Your task to perform on an android device: Empty the shopping cart on walmart. Add "asus zenbook" to the cart on walmart Image 0: 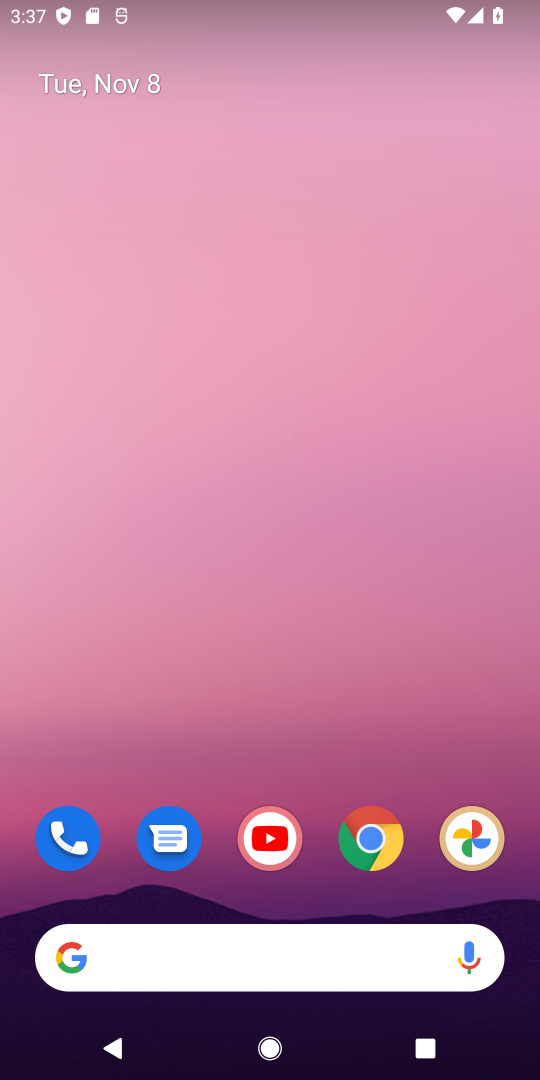
Step 0: drag from (345, 1016) to (415, 174)
Your task to perform on an android device: Empty the shopping cart on walmart. Add "asus zenbook" to the cart on walmart Image 1: 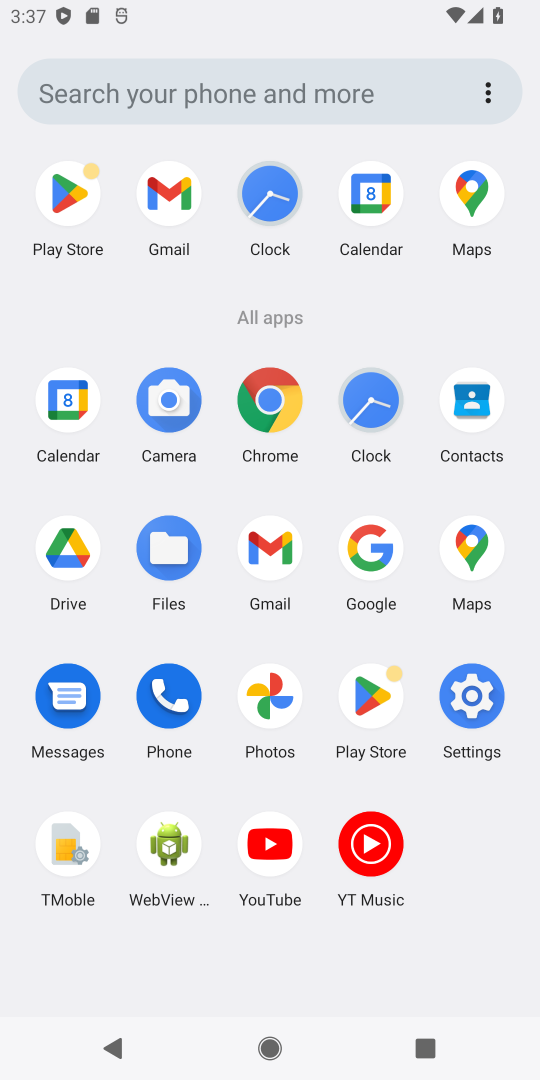
Step 1: click (269, 401)
Your task to perform on an android device: Empty the shopping cart on walmart. Add "asus zenbook" to the cart on walmart Image 2: 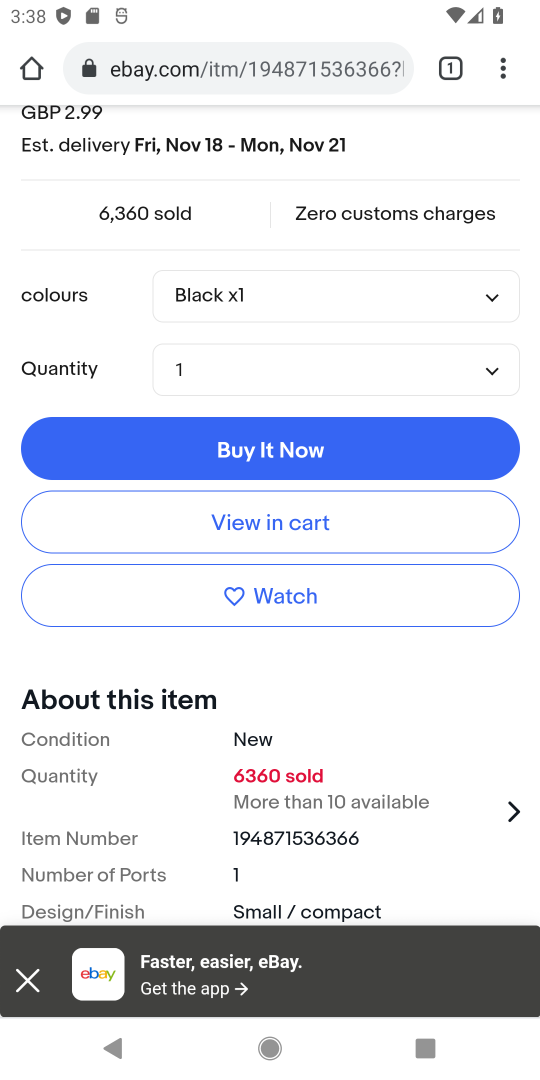
Step 2: task complete